Your task to perform on an android device: Open accessibility settings Image 0: 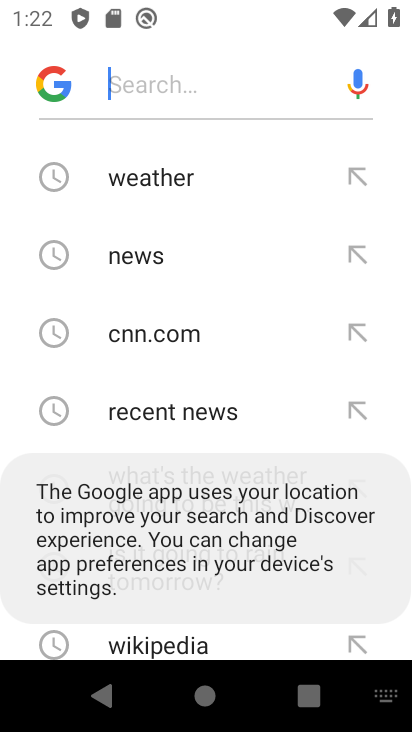
Step 0: press back button
Your task to perform on an android device: Open accessibility settings Image 1: 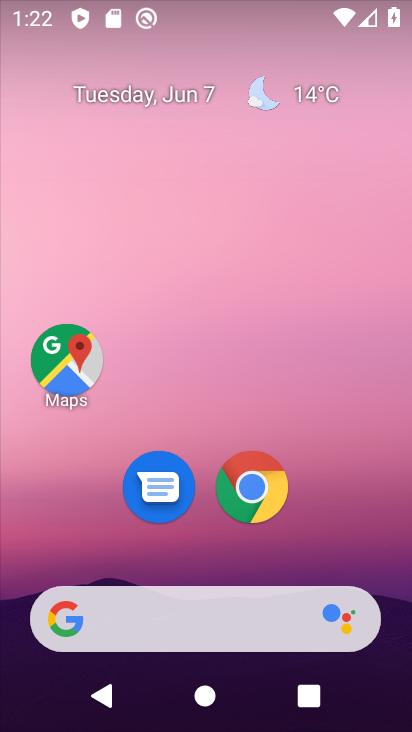
Step 1: drag from (342, 514) to (260, 49)
Your task to perform on an android device: Open accessibility settings Image 2: 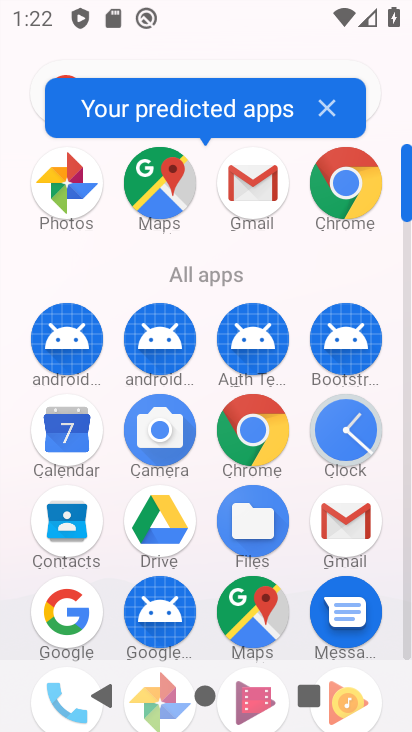
Step 2: drag from (113, 282) to (117, 51)
Your task to perform on an android device: Open accessibility settings Image 3: 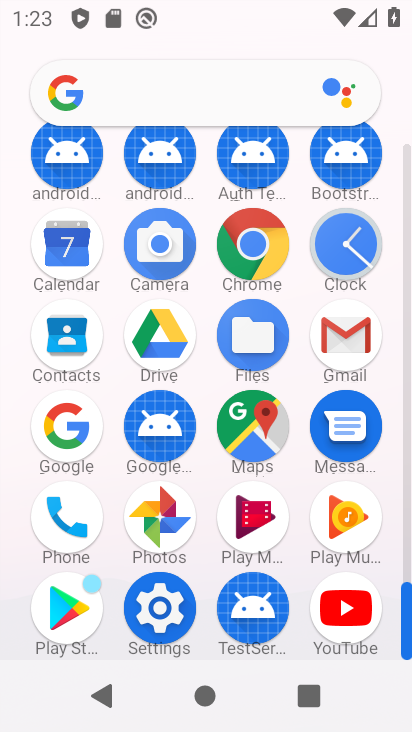
Step 3: click (159, 607)
Your task to perform on an android device: Open accessibility settings Image 4: 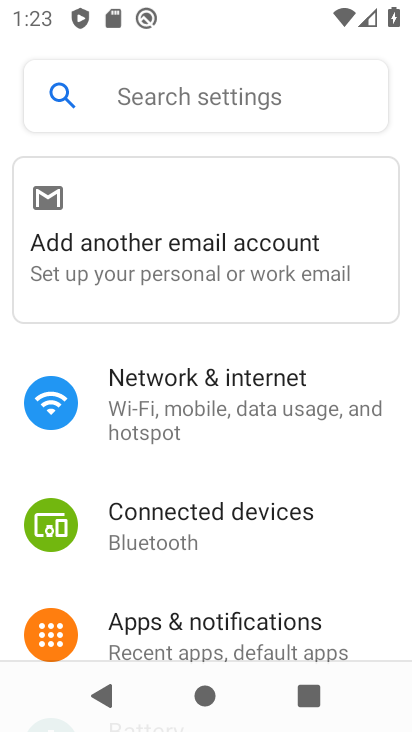
Step 4: drag from (210, 548) to (174, 377)
Your task to perform on an android device: Open accessibility settings Image 5: 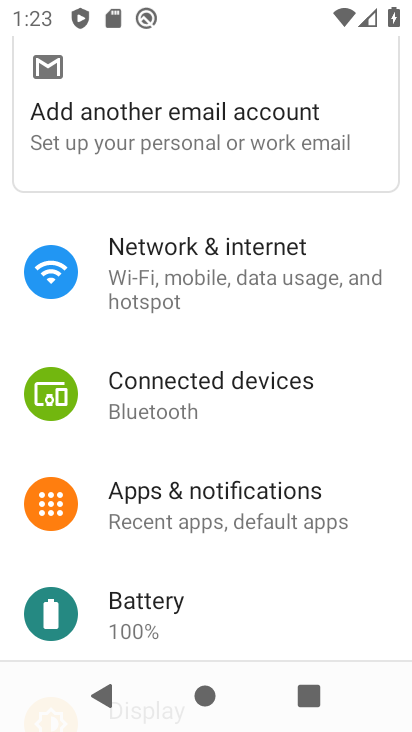
Step 5: drag from (179, 569) to (130, 372)
Your task to perform on an android device: Open accessibility settings Image 6: 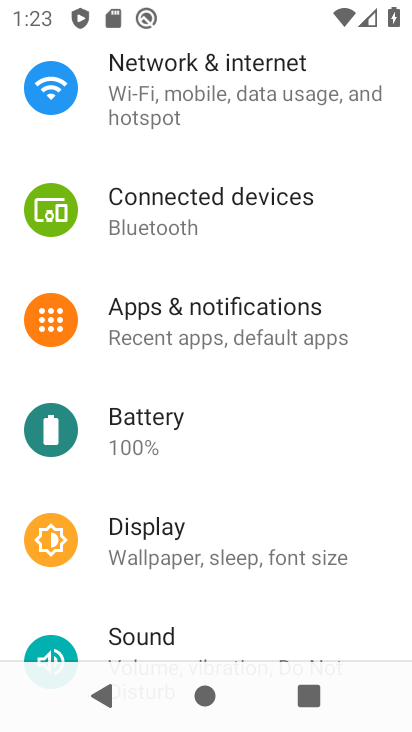
Step 6: drag from (156, 476) to (197, 306)
Your task to perform on an android device: Open accessibility settings Image 7: 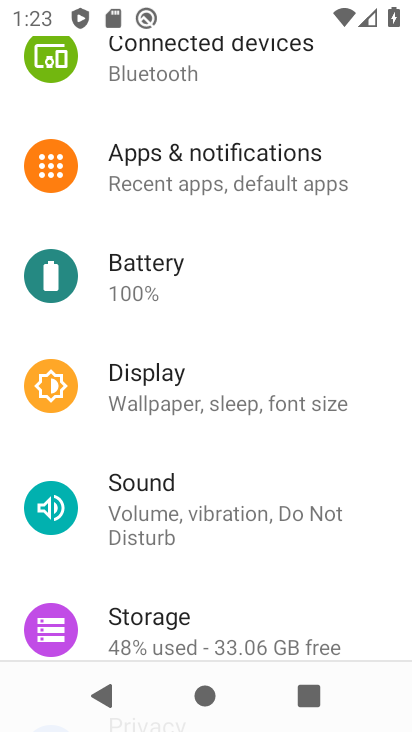
Step 7: drag from (169, 434) to (202, 267)
Your task to perform on an android device: Open accessibility settings Image 8: 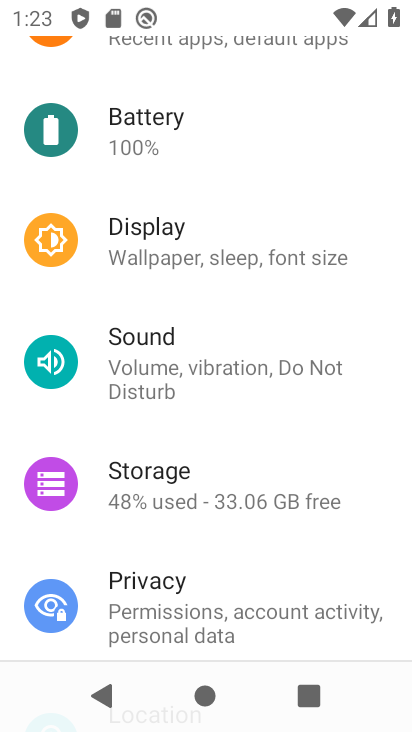
Step 8: drag from (155, 429) to (194, 258)
Your task to perform on an android device: Open accessibility settings Image 9: 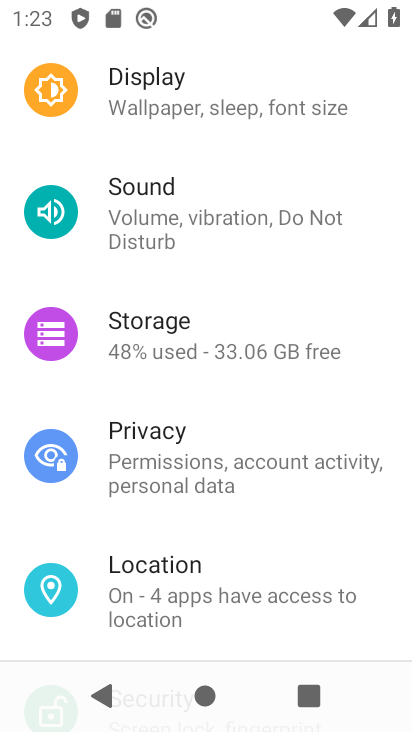
Step 9: drag from (142, 396) to (136, 228)
Your task to perform on an android device: Open accessibility settings Image 10: 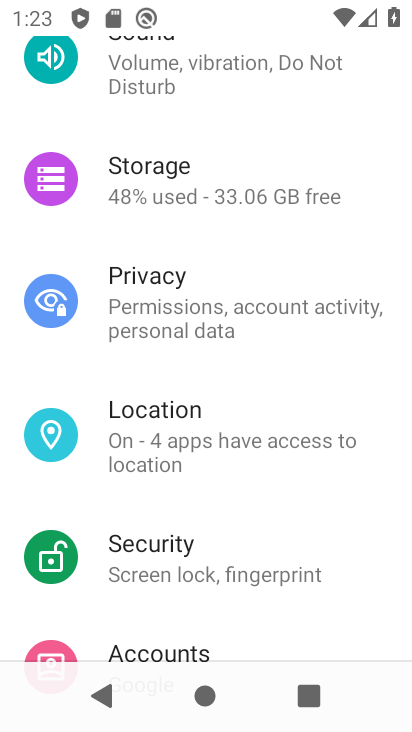
Step 10: drag from (137, 375) to (175, 187)
Your task to perform on an android device: Open accessibility settings Image 11: 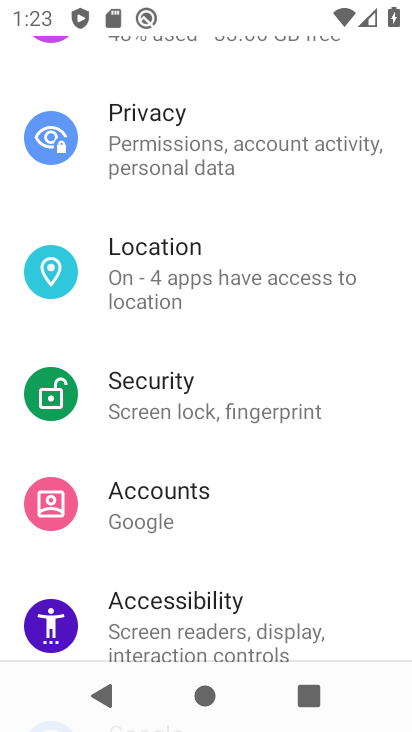
Step 11: drag from (140, 443) to (148, 303)
Your task to perform on an android device: Open accessibility settings Image 12: 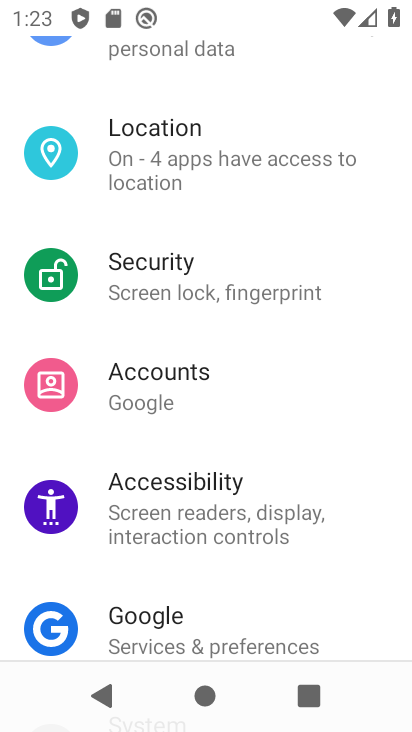
Step 12: click (171, 477)
Your task to perform on an android device: Open accessibility settings Image 13: 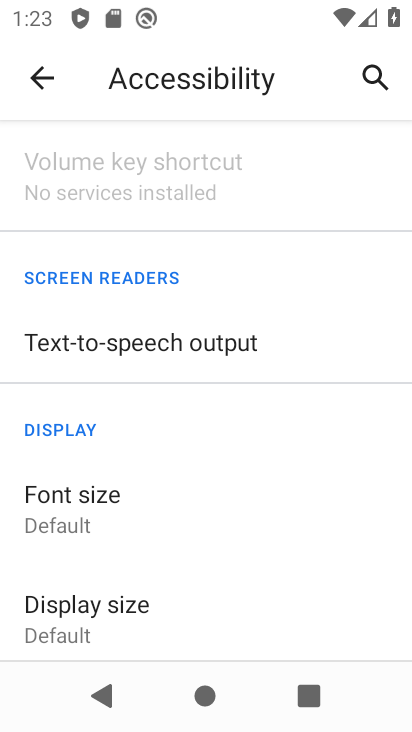
Step 13: task complete